Your task to perform on an android device: Go to Amazon Image 0: 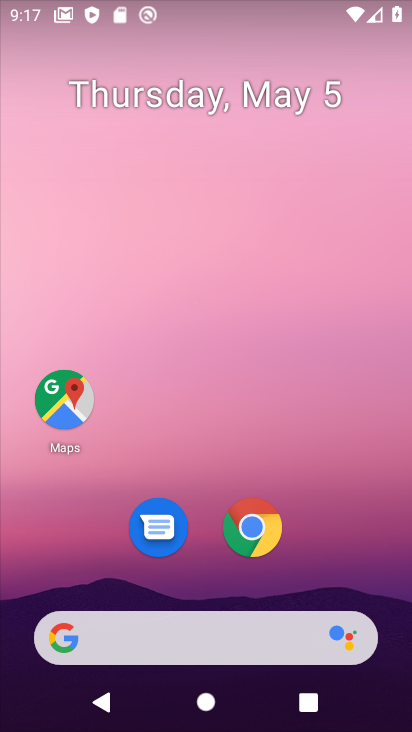
Step 0: click (244, 526)
Your task to perform on an android device: Go to Amazon Image 1: 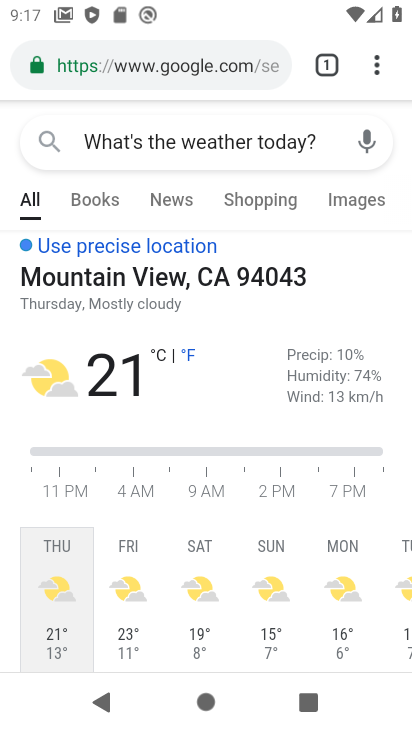
Step 1: click (335, 56)
Your task to perform on an android device: Go to Amazon Image 2: 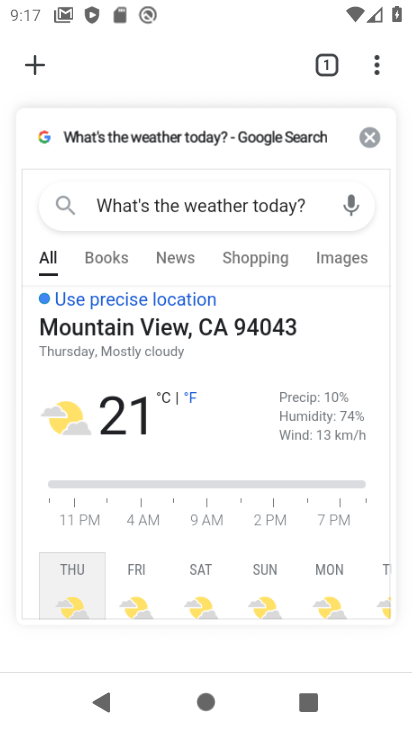
Step 2: click (47, 65)
Your task to perform on an android device: Go to Amazon Image 3: 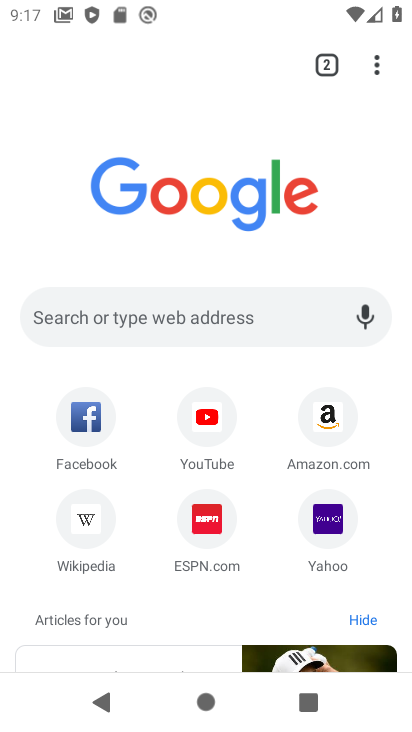
Step 3: click (320, 446)
Your task to perform on an android device: Go to Amazon Image 4: 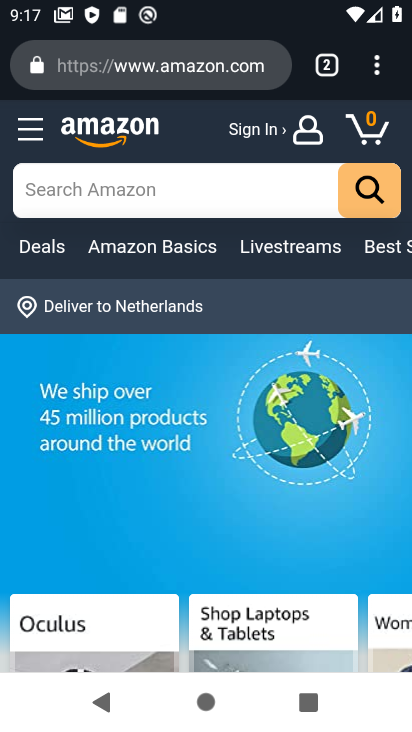
Step 4: task complete